Your task to perform on an android device: Open Yahoo.com Image 0: 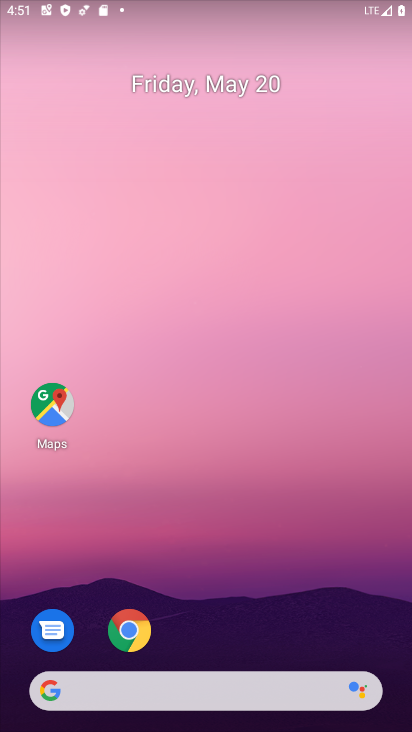
Step 0: click (222, 690)
Your task to perform on an android device: Open Yahoo.com Image 1: 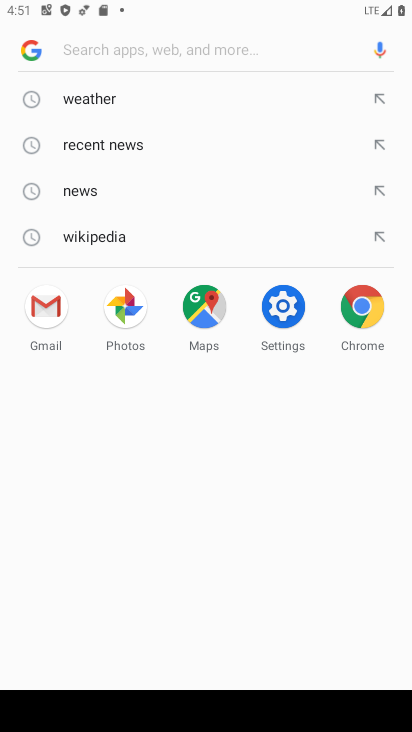
Step 1: type "yahoo.com"
Your task to perform on an android device: Open Yahoo.com Image 2: 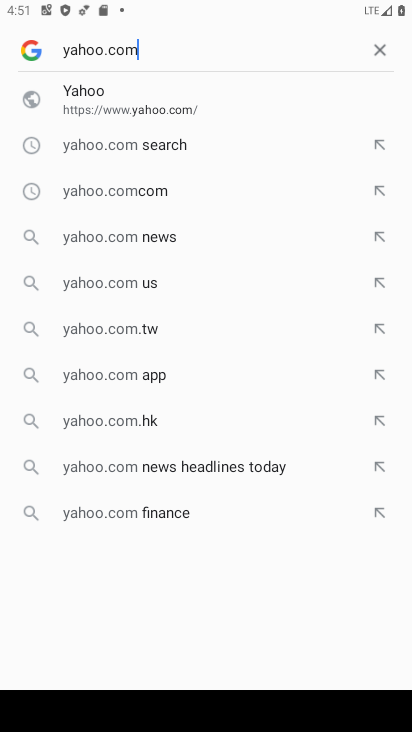
Step 2: click (126, 86)
Your task to perform on an android device: Open Yahoo.com Image 3: 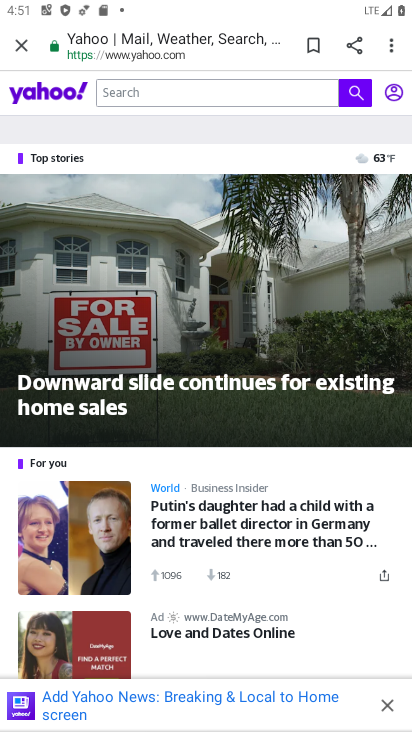
Step 3: task complete